Your task to perform on an android device: Open the calendar and show me this week's events Image 0: 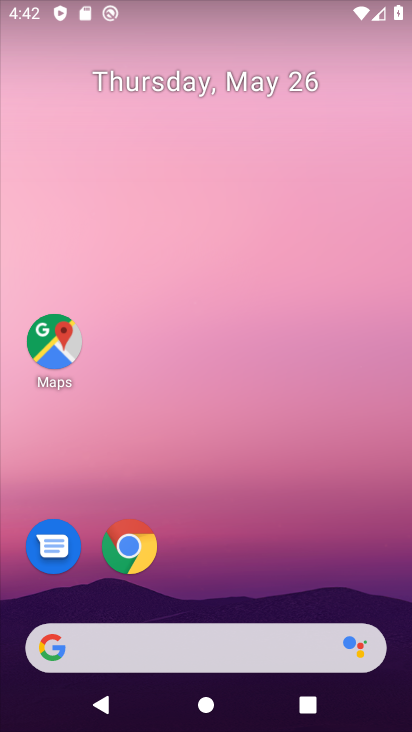
Step 0: drag from (272, 568) to (122, 87)
Your task to perform on an android device: Open the calendar and show me this week's events Image 1: 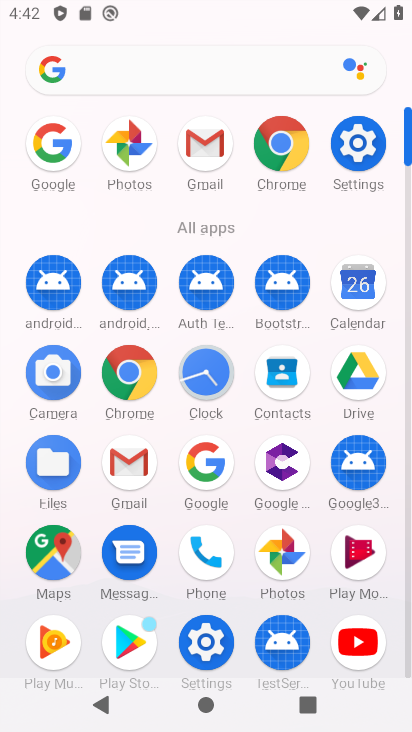
Step 1: click (360, 294)
Your task to perform on an android device: Open the calendar and show me this week's events Image 2: 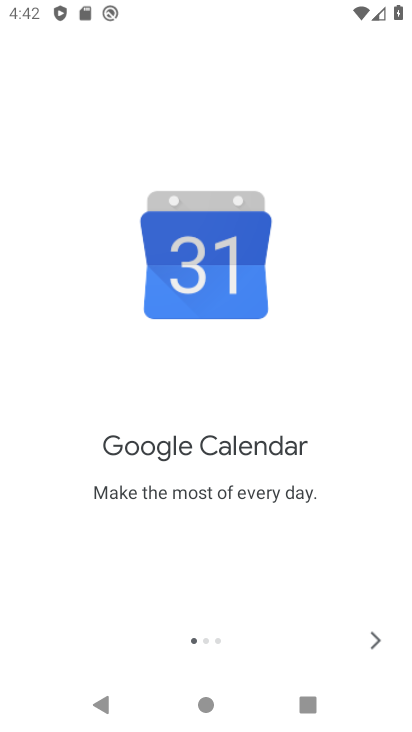
Step 2: click (372, 637)
Your task to perform on an android device: Open the calendar and show me this week's events Image 3: 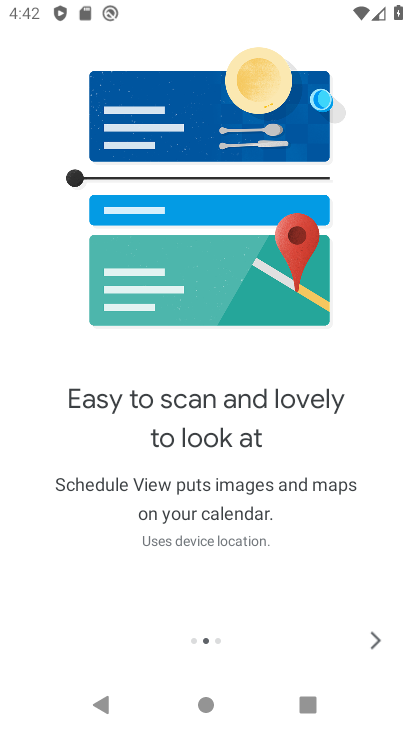
Step 3: click (372, 637)
Your task to perform on an android device: Open the calendar and show me this week's events Image 4: 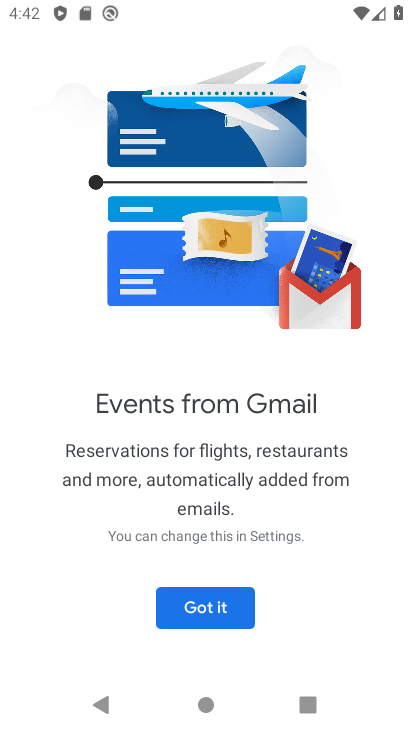
Step 4: click (223, 617)
Your task to perform on an android device: Open the calendar and show me this week's events Image 5: 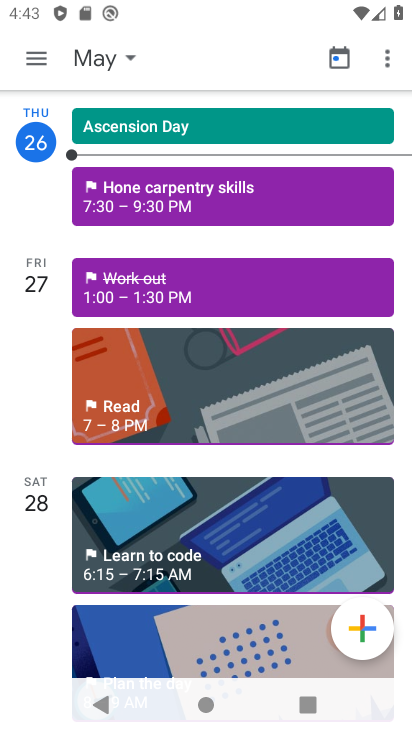
Step 5: click (33, 71)
Your task to perform on an android device: Open the calendar and show me this week's events Image 6: 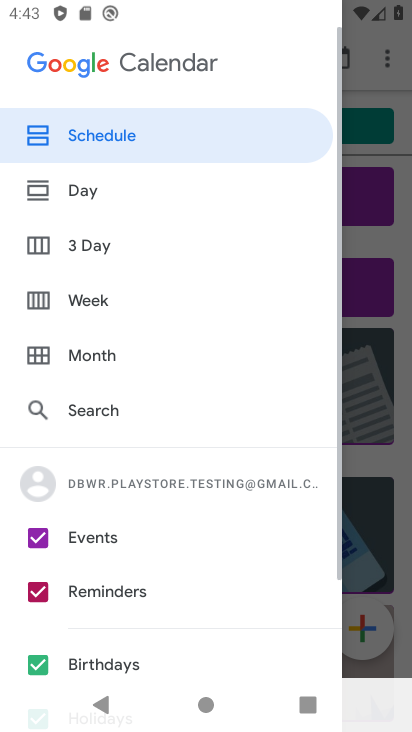
Step 6: drag from (157, 592) to (115, 304)
Your task to perform on an android device: Open the calendar and show me this week's events Image 7: 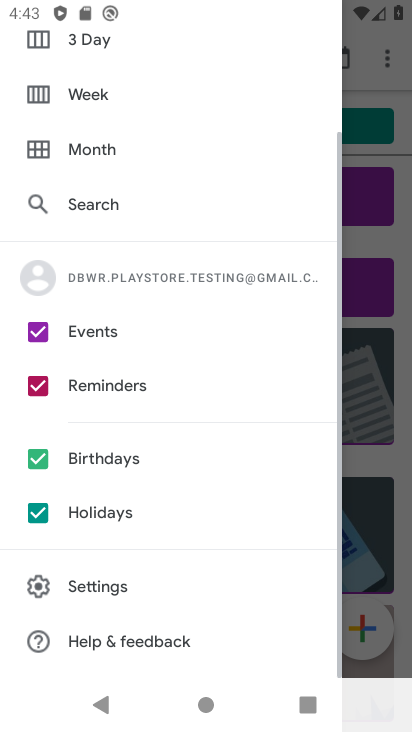
Step 7: click (28, 507)
Your task to perform on an android device: Open the calendar and show me this week's events Image 8: 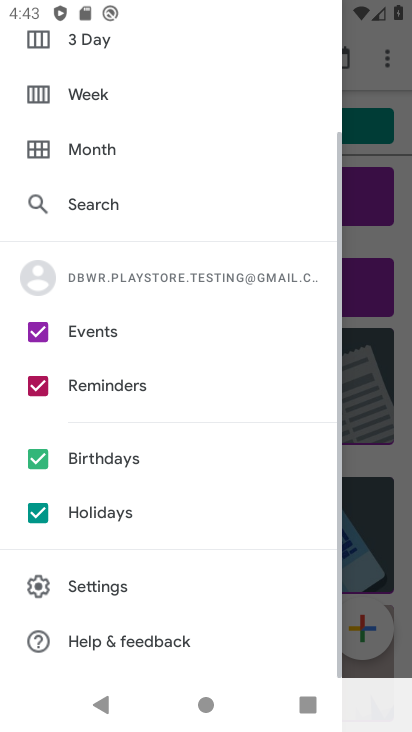
Step 8: click (40, 459)
Your task to perform on an android device: Open the calendar and show me this week's events Image 9: 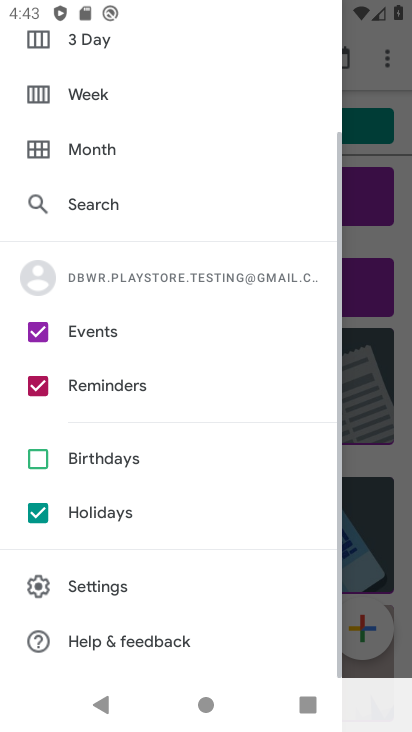
Step 9: click (36, 388)
Your task to perform on an android device: Open the calendar and show me this week's events Image 10: 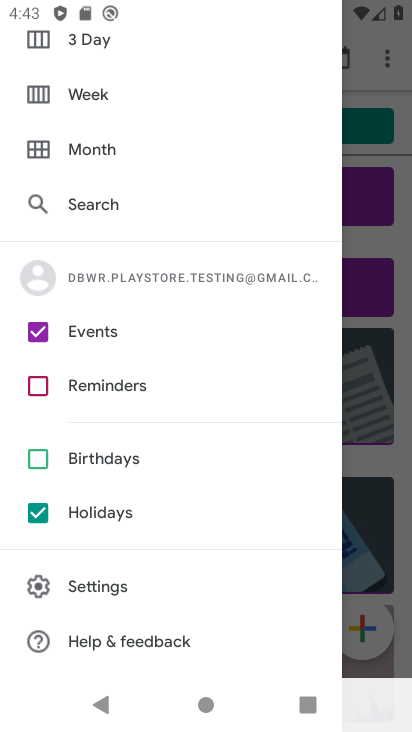
Step 10: click (39, 511)
Your task to perform on an android device: Open the calendar and show me this week's events Image 11: 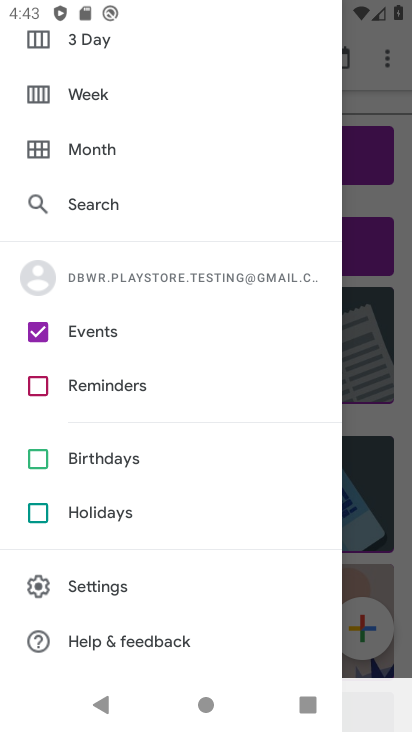
Step 11: click (92, 102)
Your task to perform on an android device: Open the calendar and show me this week's events Image 12: 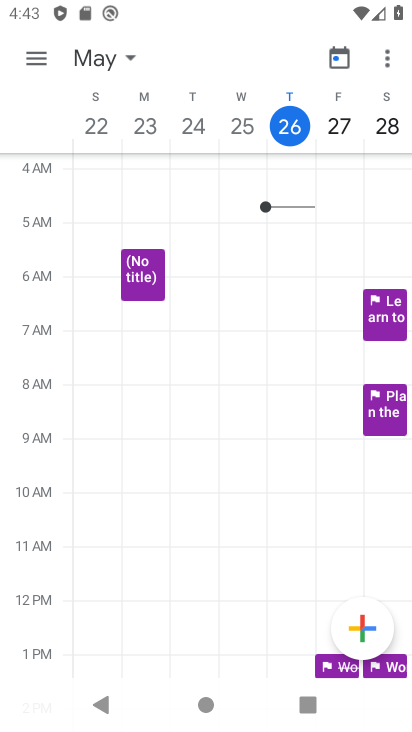
Step 12: task complete